Your task to perform on an android device: toggle data saver in the chrome app Image 0: 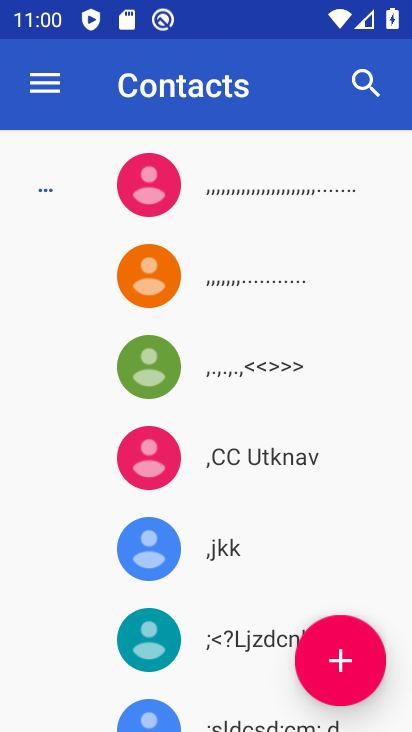
Step 0: press home button
Your task to perform on an android device: toggle data saver in the chrome app Image 1: 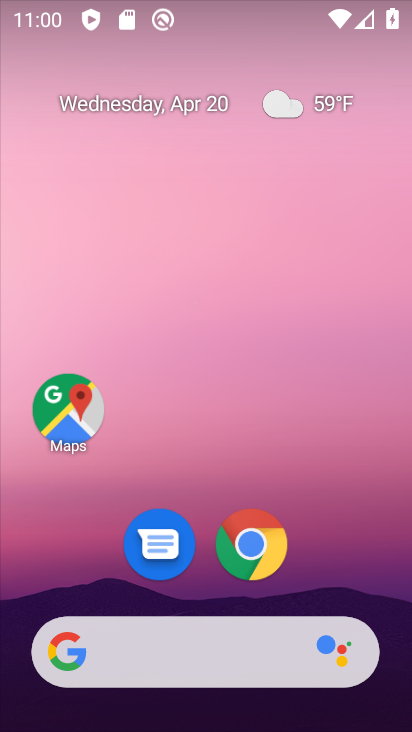
Step 1: click (261, 548)
Your task to perform on an android device: toggle data saver in the chrome app Image 2: 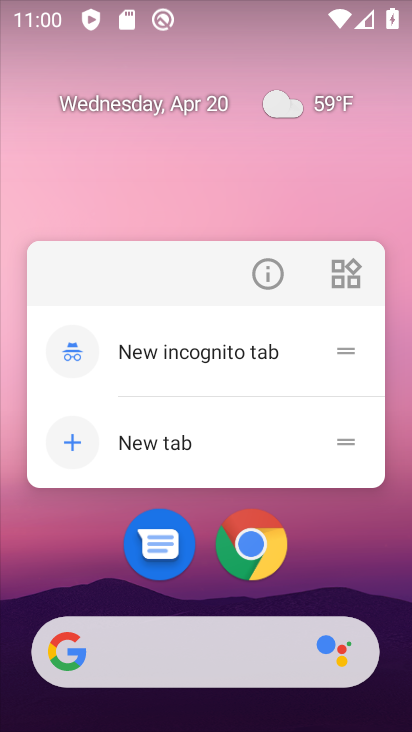
Step 2: click (266, 552)
Your task to perform on an android device: toggle data saver in the chrome app Image 3: 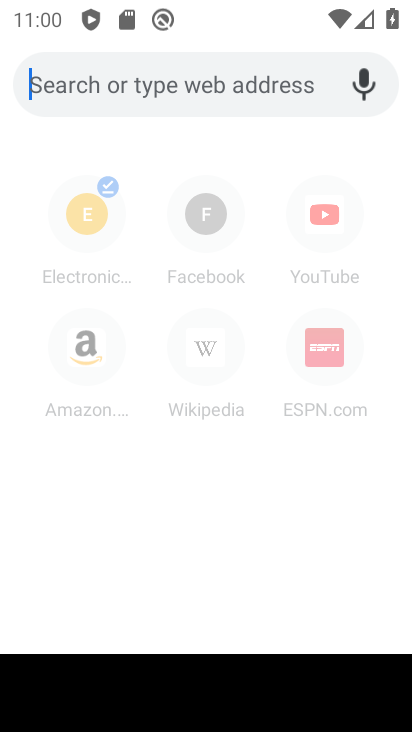
Step 3: press back button
Your task to perform on an android device: toggle data saver in the chrome app Image 4: 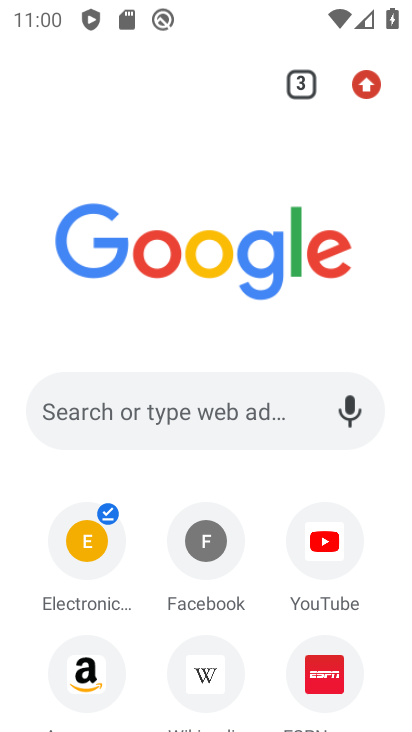
Step 4: click (366, 92)
Your task to perform on an android device: toggle data saver in the chrome app Image 5: 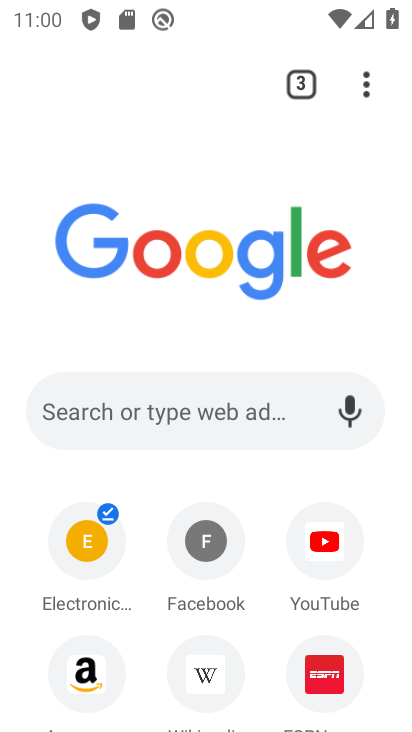
Step 5: click (362, 86)
Your task to perform on an android device: toggle data saver in the chrome app Image 6: 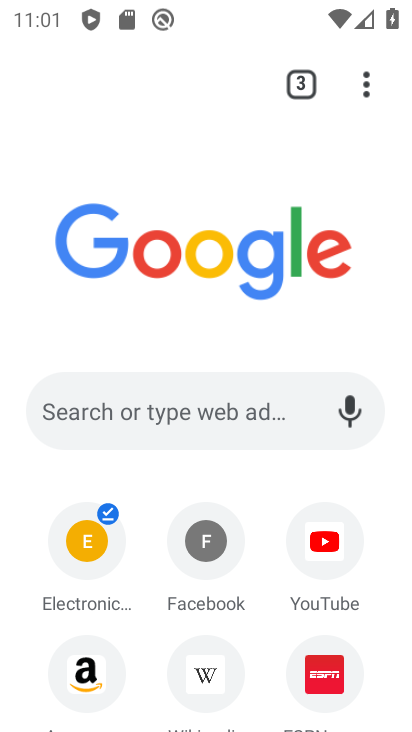
Step 6: click (369, 81)
Your task to perform on an android device: toggle data saver in the chrome app Image 7: 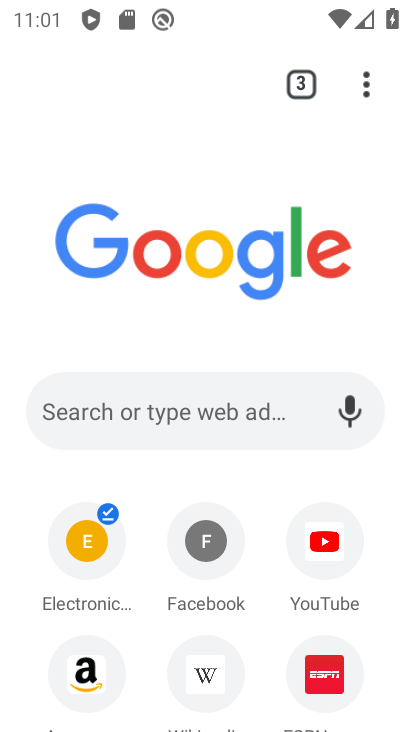
Step 7: click (369, 81)
Your task to perform on an android device: toggle data saver in the chrome app Image 8: 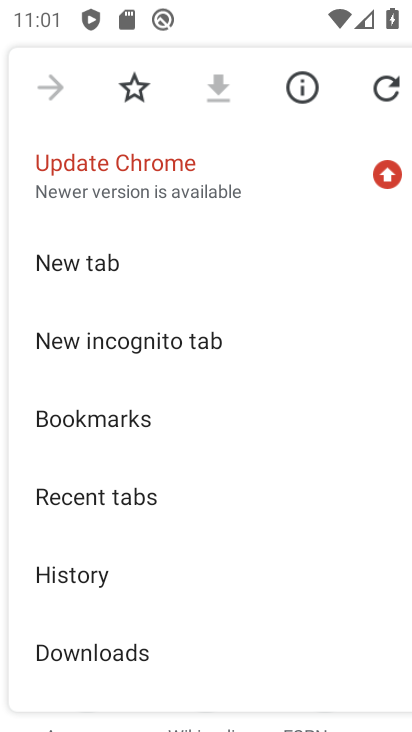
Step 8: drag from (263, 568) to (298, 104)
Your task to perform on an android device: toggle data saver in the chrome app Image 9: 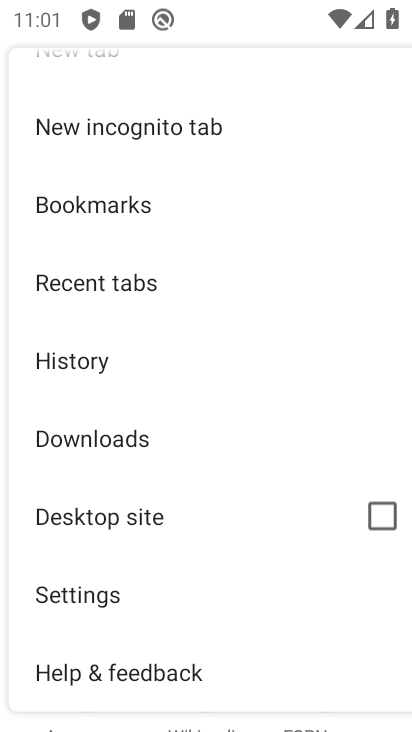
Step 9: drag from (321, 617) to (379, 284)
Your task to perform on an android device: toggle data saver in the chrome app Image 10: 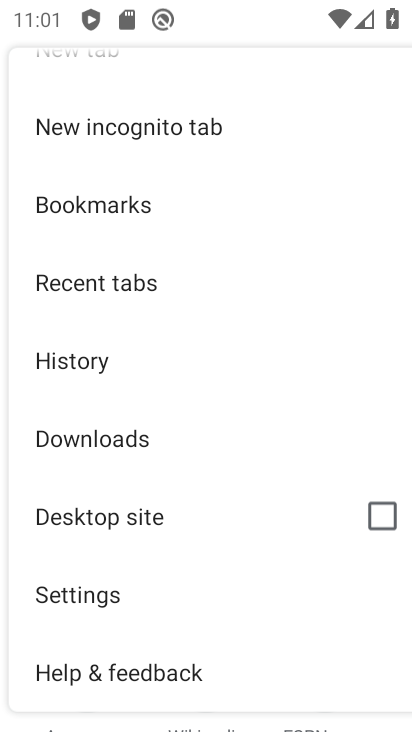
Step 10: click (135, 611)
Your task to perform on an android device: toggle data saver in the chrome app Image 11: 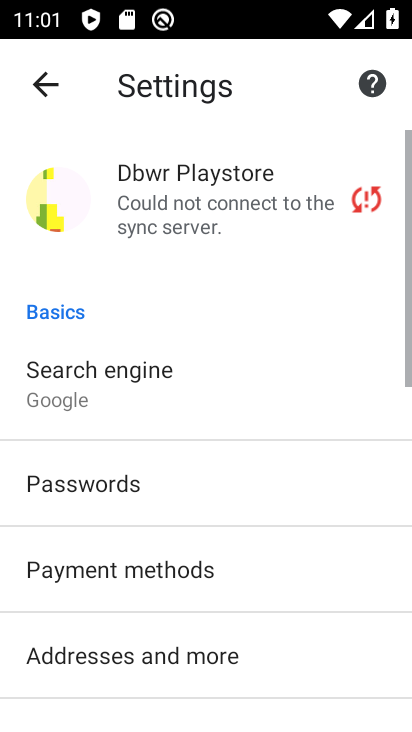
Step 11: drag from (239, 563) to (288, 108)
Your task to perform on an android device: toggle data saver in the chrome app Image 12: 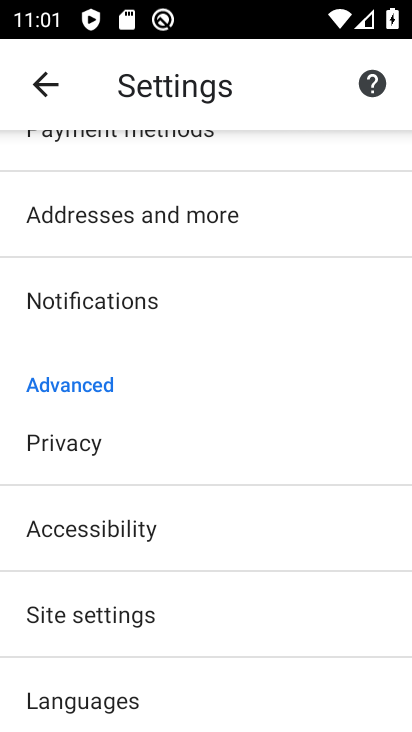
Step 12: drag from (259, 557) to (307, 215)
Your task to perform on an android device: toggle data saver in the chrome app Image 13: 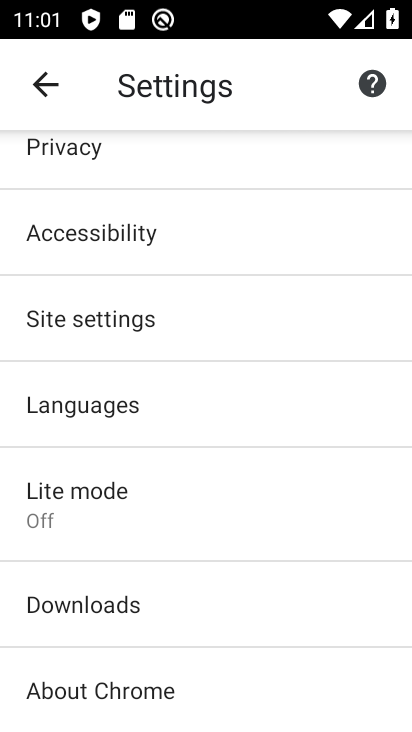
Step 13: click (189, 480)
Your task to perform on an android device: toggle data saver in the chrome app Image 14: 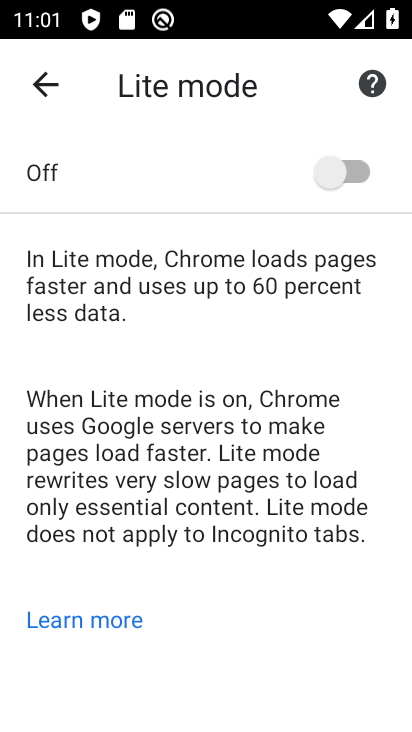
Step 14: click (355, 165)
Your task to perform on an android device: toggle data saver in the chrome app Image 15: 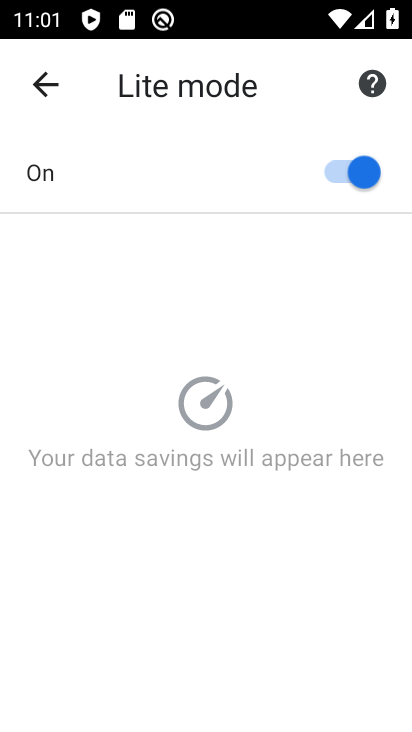
Step 15: task complete